Your task to perform on an android device: turn off smart reply in the gmail app Image 0: 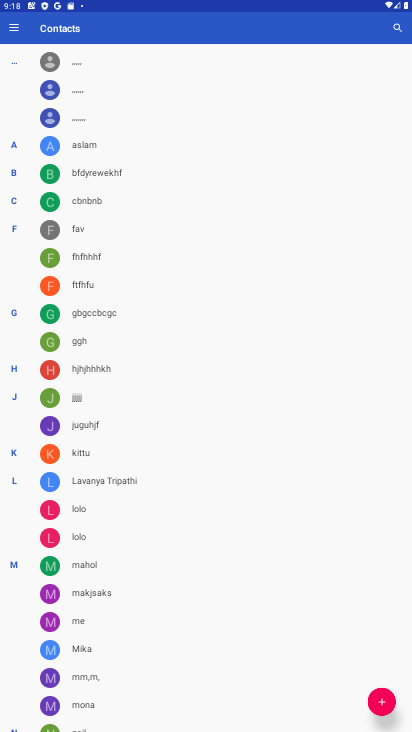
Step 0: press home button
Your task to perform on an android device: turn off smart reply in the gmail app Image 1: 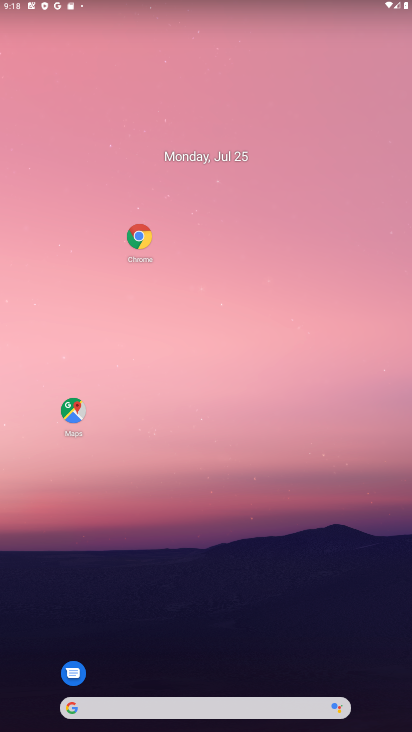
Step 1: drag from (249, 655) to (163, 216)
Your task to perform on an android device: turn off smart reply in the gmail app Image 2: 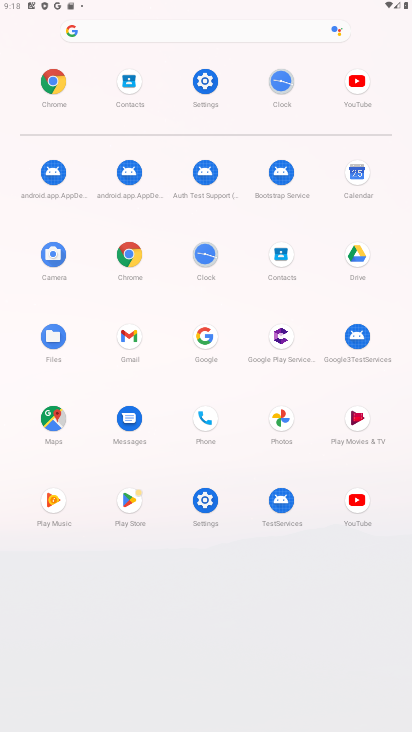
Step 2: click (135, 348)
Your task to perform on an android device: turn off smart reply in the gmail app Image 3: 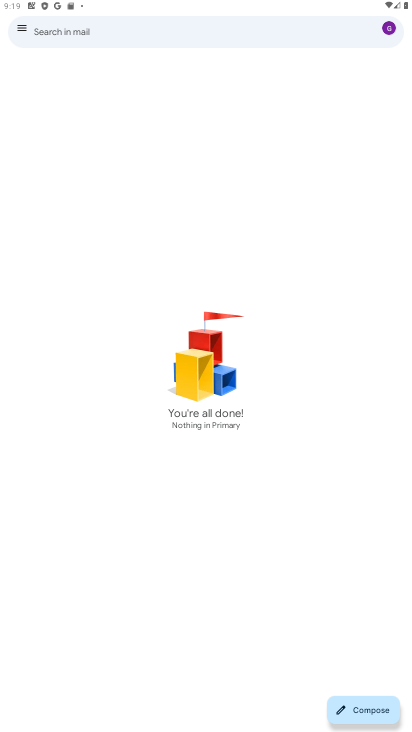
Step 3: click (17, 35)
Your task to perform on an android device: turn off smart reply in the gmail app Image 4: 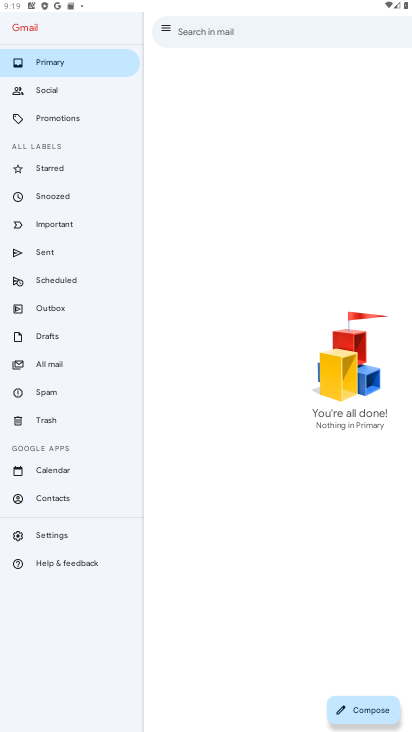
Step 4: click (50, 534)
Your task to perform on an android device: turn off smart reply in the gmail app Image 5: 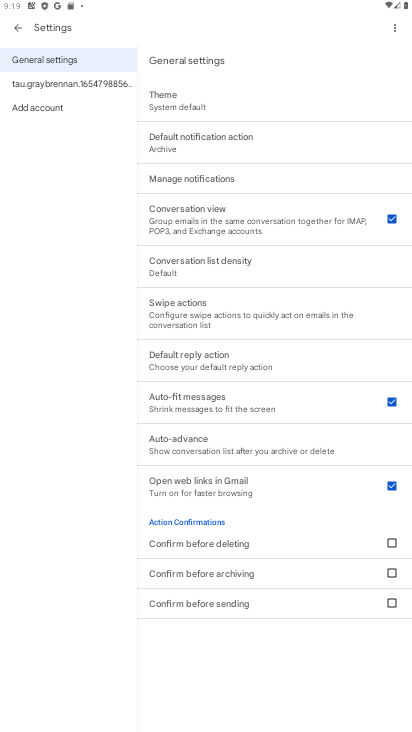
Step 5: click (87, 81)
Your task to perform on an android device: turn off smart reply in the gmail app Image 6: 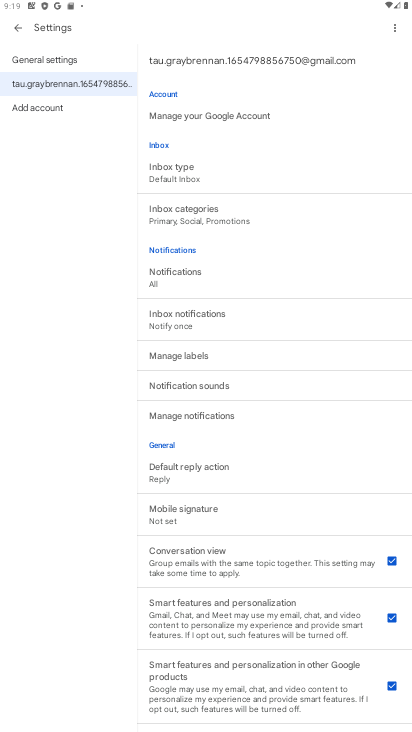
Step 6: task complete